Your task to perform on an android device: Show me popular videos on Youtube Image 0: 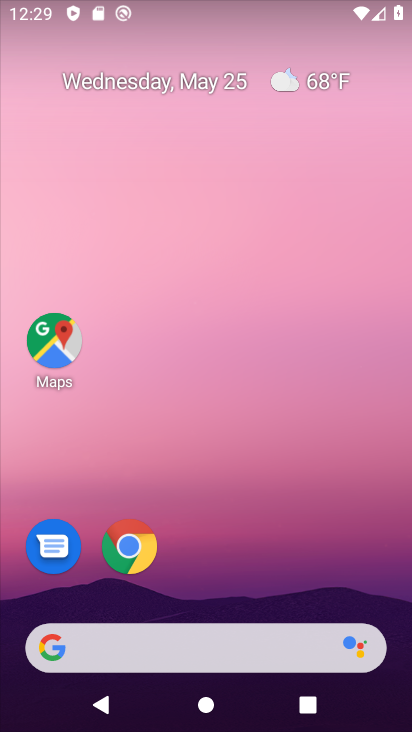
Step 0: drag from (294, 595) to (243, 6)
Your task to perform on an android device: Show me popular videos on Youtube Image 1: 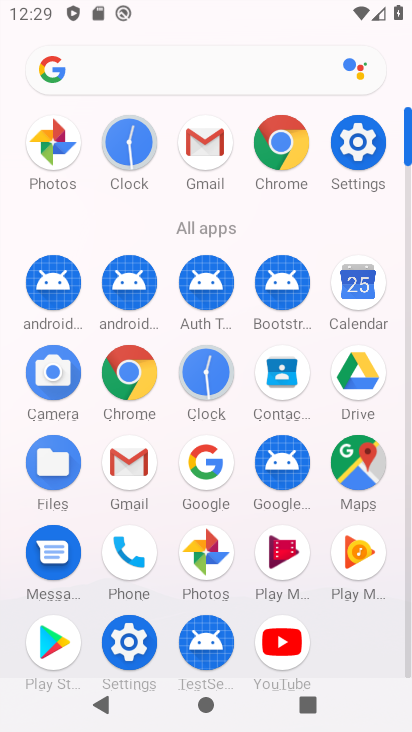
Step 1: click (288, 641)
Your task to perform on an android device: Show me popular videos on Youtube Image 2: 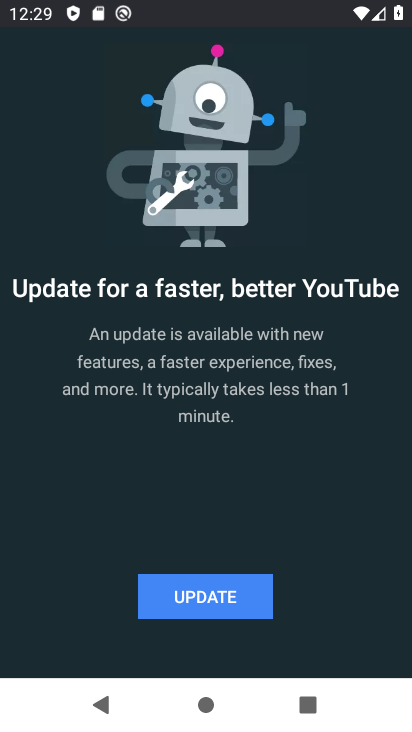
Step 2: click (200, 606)
Your task to perform on an android device: Show me popular videos on Youtube Image 3: 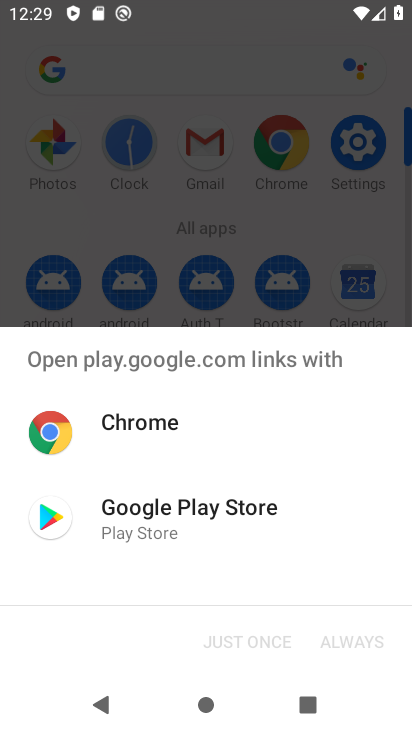
Step 3: click (193, 528)
Your task to perform on an android device: Show me popular videos on Youtube Image 4: 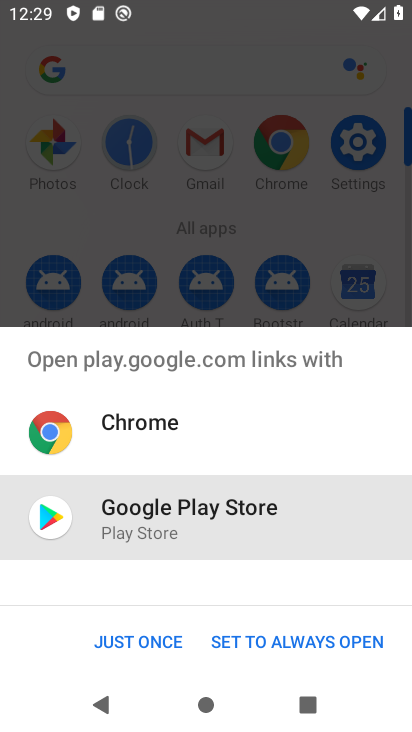
Step 4: click (155, 647)
Your task to perform on an android device: Show me popular videos on Youtube Image 5: 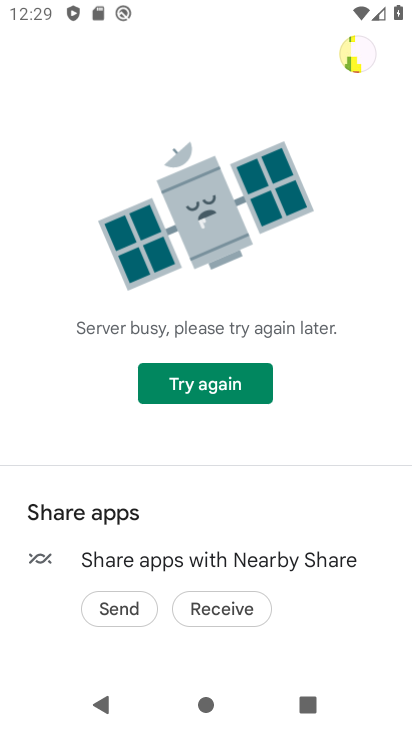
Step 5: click (173, 389)
Your task to perform on an android device: Show me popular videos on Youtube Image 6: 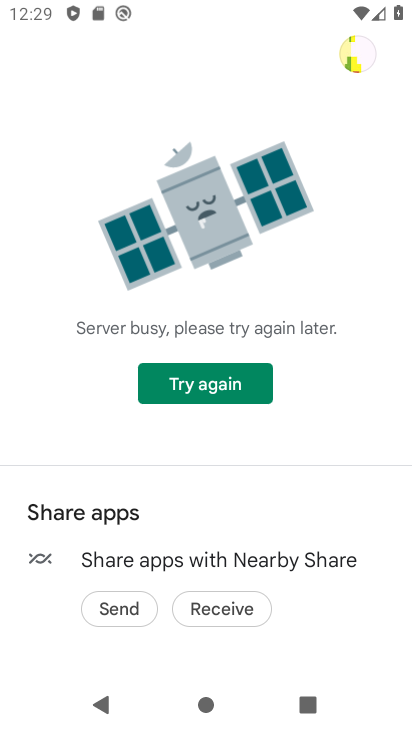
Step 6: click (180, 391)
Your task to perform on an android device: Show me popular videos on Youtube Image 7: 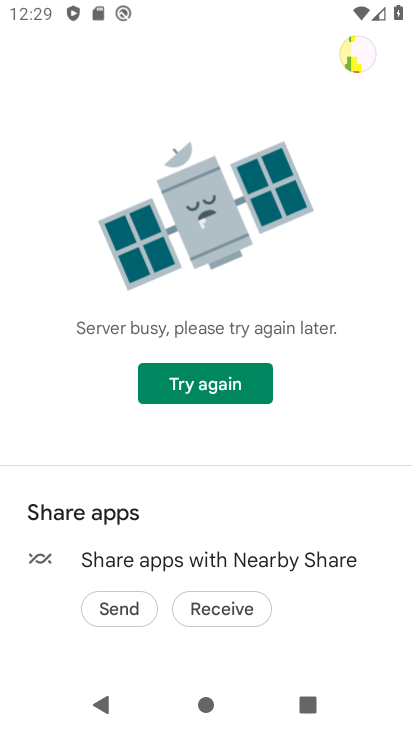
Step 7: task complete